Your task to perform on an android device: Search for sushi restaurants on Maps Image 0: 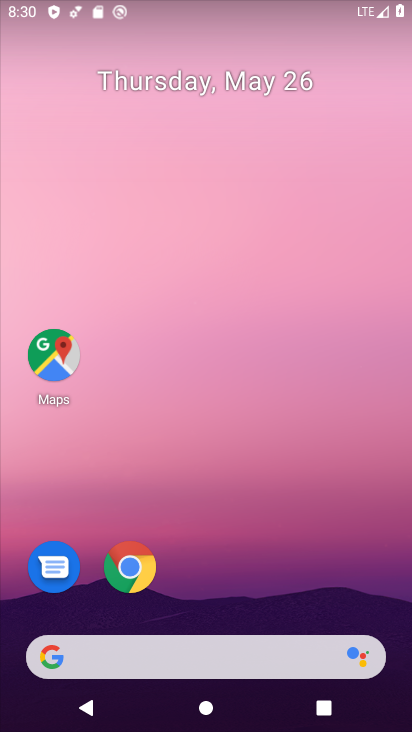
Step 0: click (55, 375)
Your task to perform on an android device: Search for sushi restaurants on Maps Image 1: 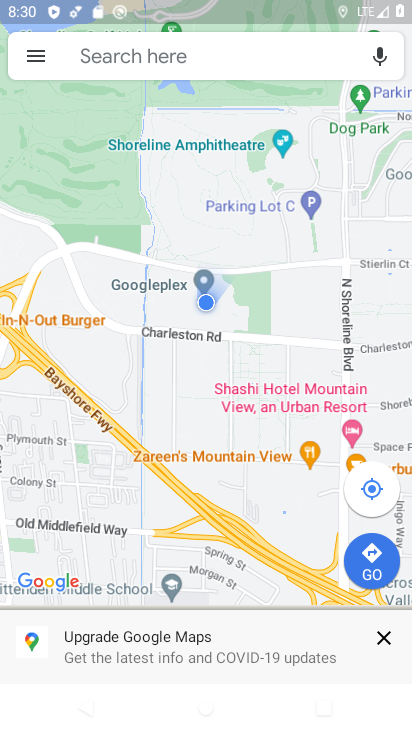
Step 1: click (199, 46)
Your task to perform on an android device: Search for sushi restaurants on Maps Image 2: 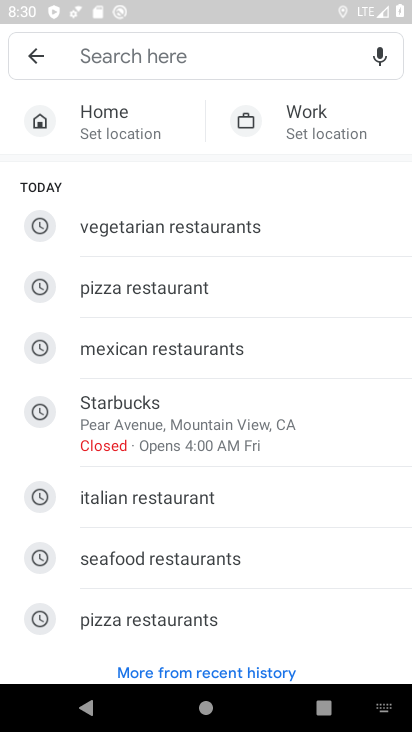
Step 2: drag from (225, 601) to (247, 136)
Your task to perform on an android device: Search for sushi restaurants on Maps Image 3: 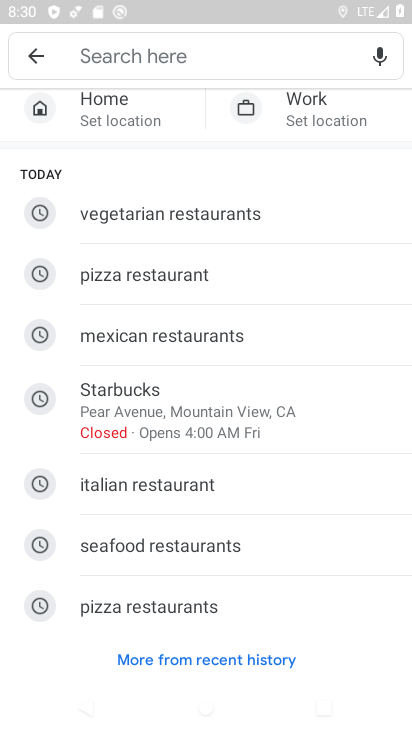
Step 3: type "sushi res"
Your task to perform on an android device: Search for sushi restaurants on Maps Image 4: 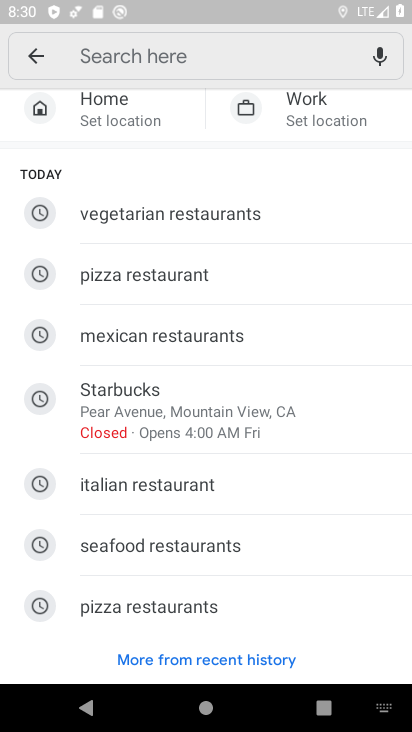
Step 4: click (229, 49)
Your task to perform on an android device: Search for sushi restaurants on Maps Image 5: 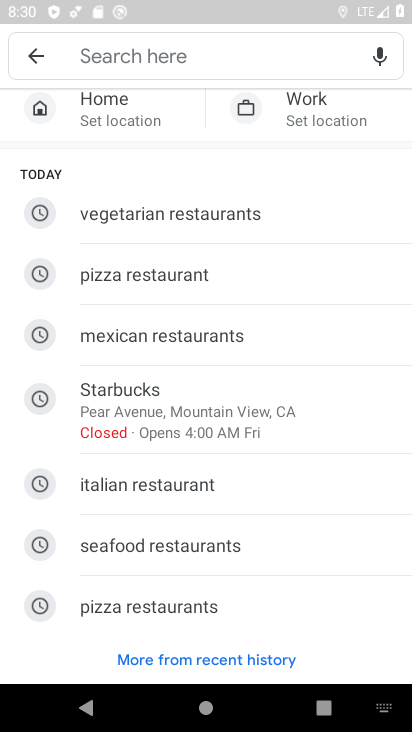
Step 5: type "sushi res"
Your task to perform on an android device: Search for sushi restaurants on Maps Image 6: 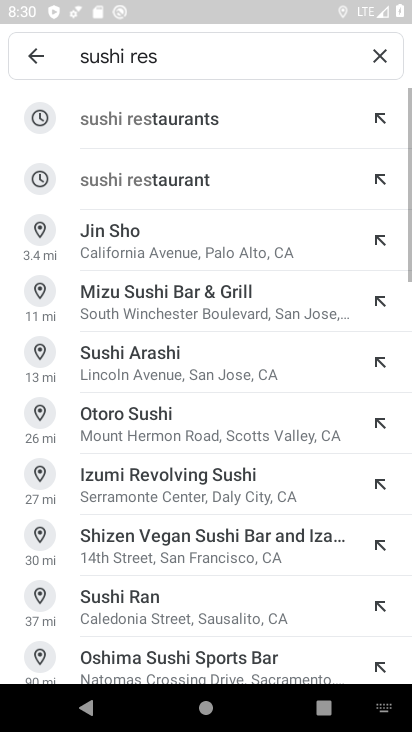
Step 6: click (272, 126)
Your task to perform on an android device: Search for sushi restaurants on Maps Image 7: 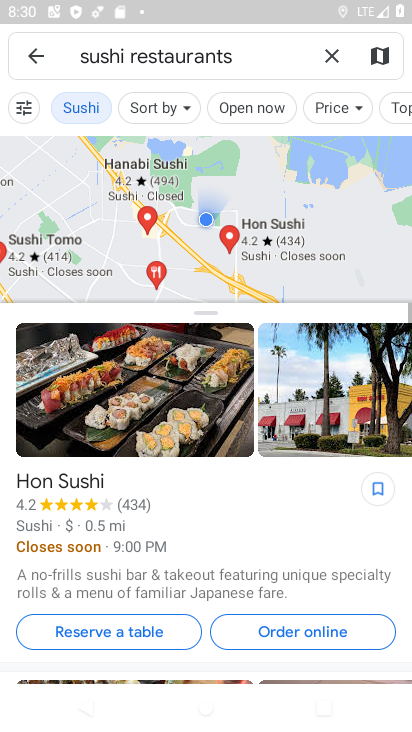
Step 7: task complete